Your task to perform on an android device: Go to ESPN.com Image 0: 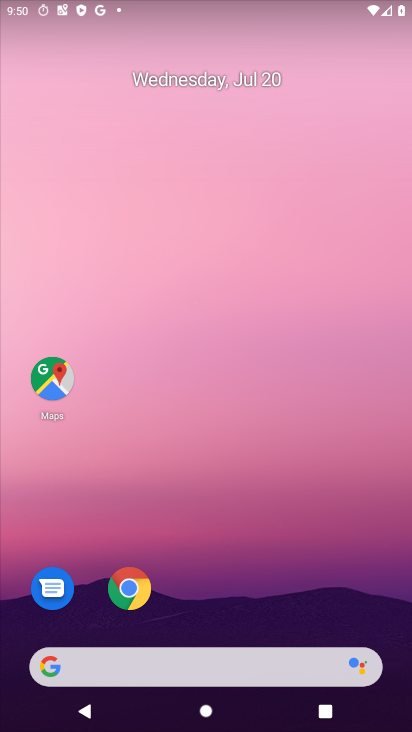
Step 0: drag from (216, 660) to (156, 87)
Your task to perform on an android device: Go to ESPN.com Image 1: 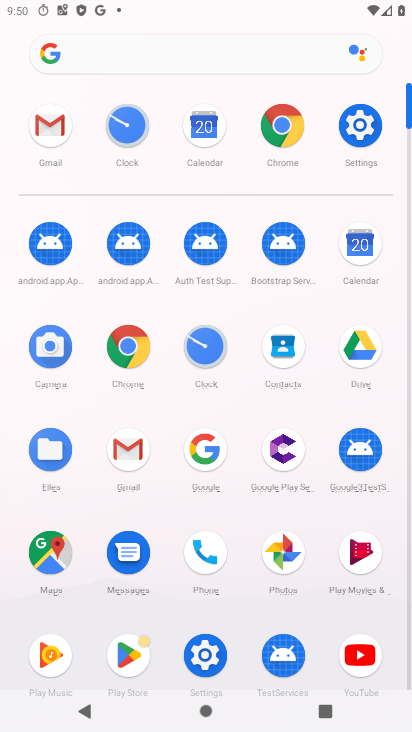
Step 1: click (146, 337)
Your task to perform on an android device: Go to ESPN.com Image 2: 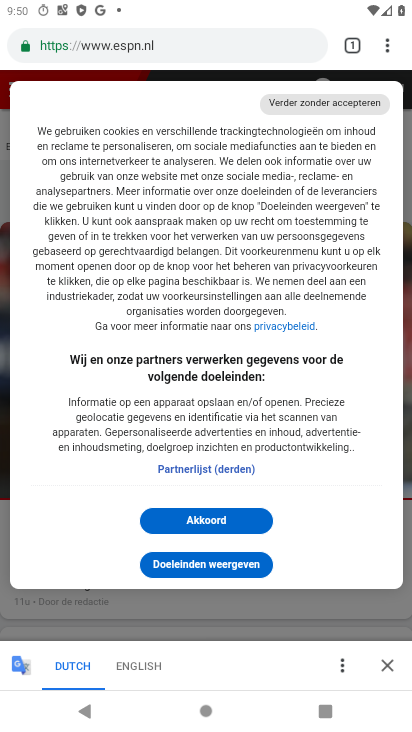
Step 2: task complete